Your task to perform on an android device: Open the calendar app, open the side menu, and click the "Day" option Image 0: 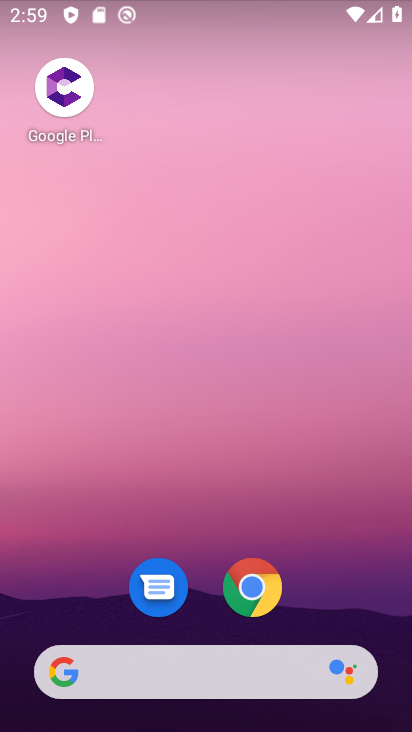
Step 0: drag from (306, 624) to (366, 144)
Your task to perform on an android device: Open the calendar app, open the side menu, and click the "Day" option Image 1: 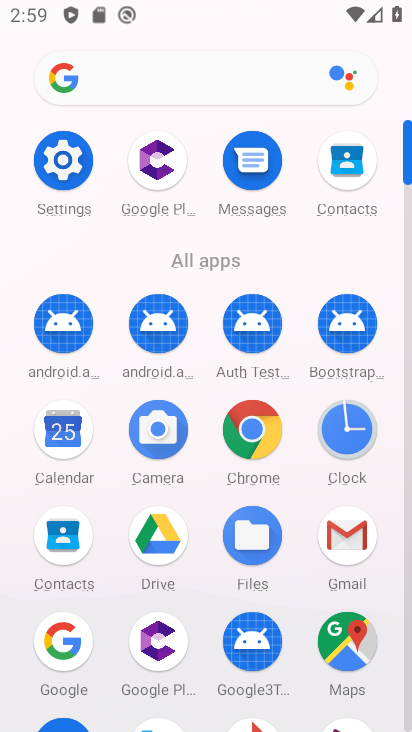
Step 1: click (64, 420)
Your task to perform on an android device: Open the calendar app, open the side menu, and click the "Day" option Image 2: 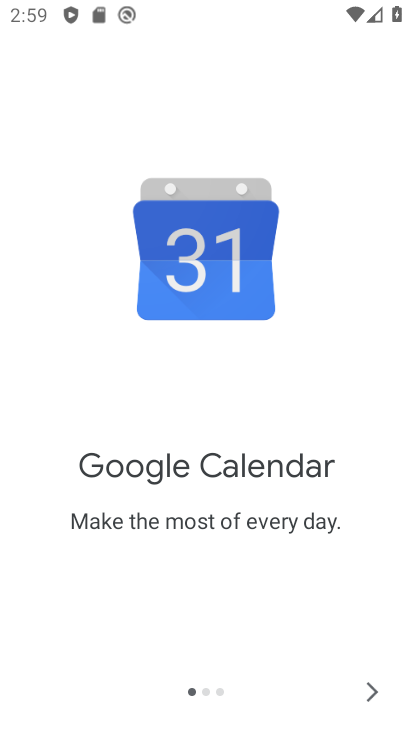
Step 2: click (372, 691)
Your task to perform on an android device: Open the calendar app, open the side menu, and click the "Day" option Image 3: 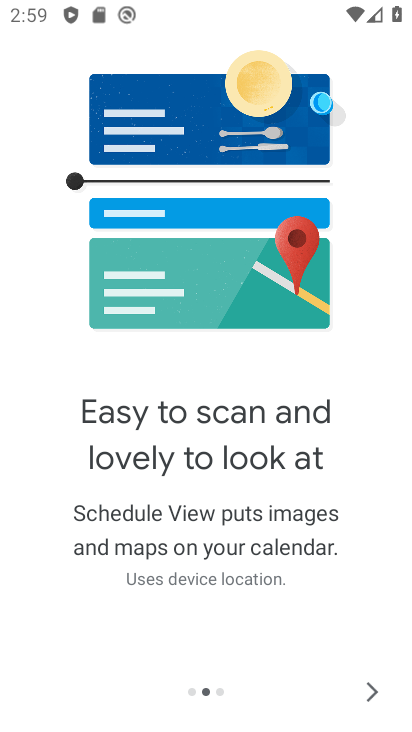
Step 3: click (372, 691)
Your task to perform on an android device: Open the calendar app, open the side menu, and click the "Day" option Image 4: 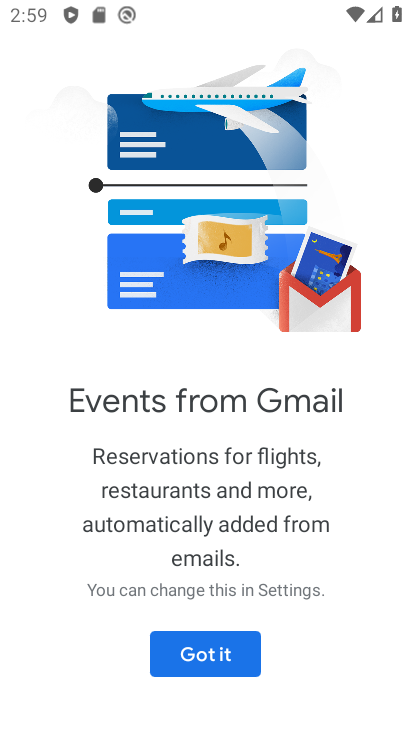
Step 4: click (372, 691)
Your task to perform on an android device: Open the calendar app, open the side menu, and click the "Day" option Image 5: 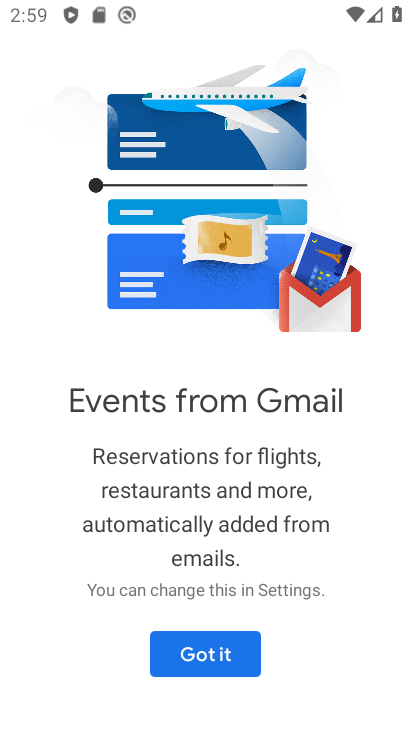
Step 5: click (181, 647)
Your task to perform on an android device: Open the calendar app, open the side menu, and click the "Day" option Image 6: 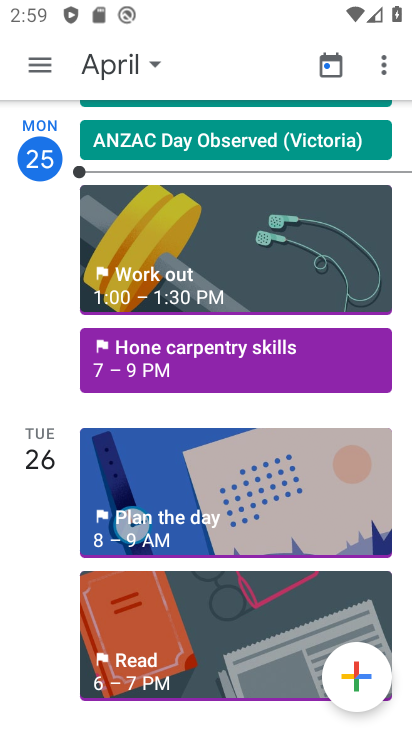
Step 6: click (36, 57)
Your task to perform on an android device: Open the calendar app, open the side menu, and click the "Day" option Image 7: 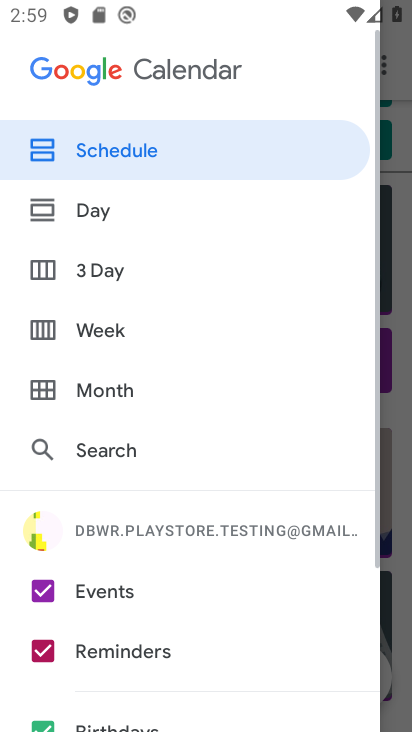
Step 7: click (104, 210)
Your task to perform on an android device: Open the calendar app, open the side menu, and click the "Day" option Image 8: 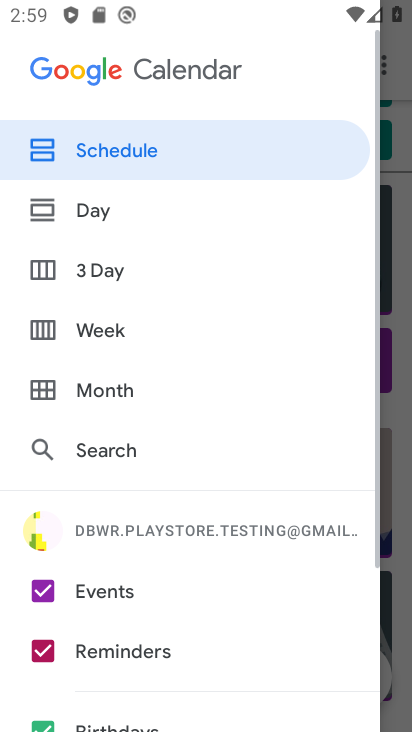
Step 8: click (104, 210)
Your task to perform on an android device: Open the calendar app, open the side menu, and click the "Day" option Image 9: 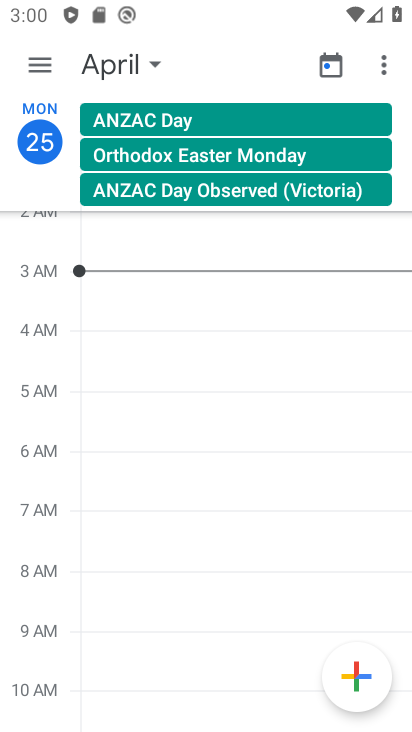
Step 9: task complete